Your task to perform on an android device: change the clock display to digital Image 0: 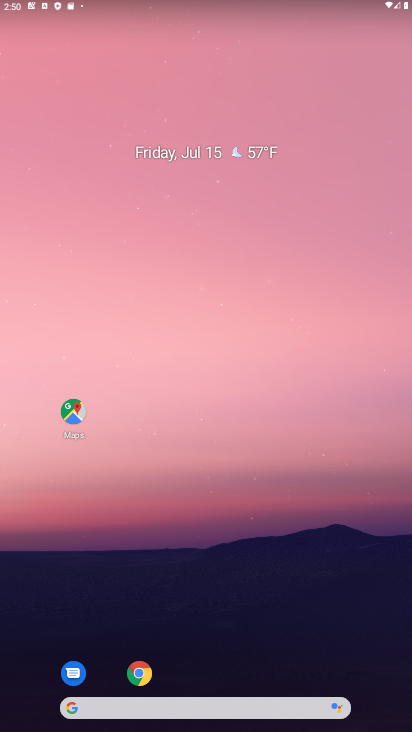
Step 0: drag from (396, 648) to (343, 108)
Your task to perform on an android device: change the clock display to digital Image 1: 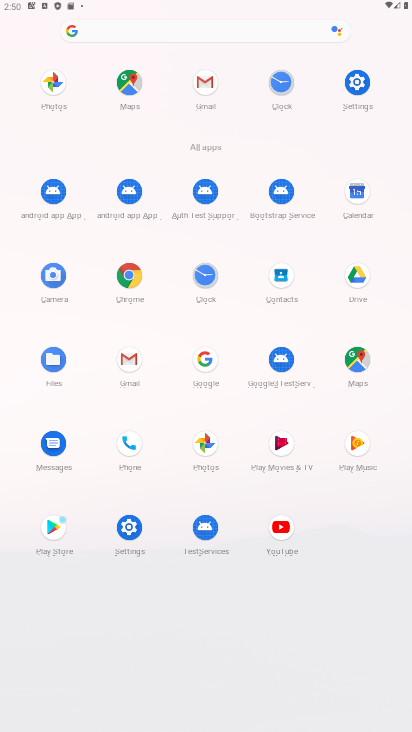
Step 1: click (203, 277)
Your task to perform on an android device: change the clock display to digital Image 2: 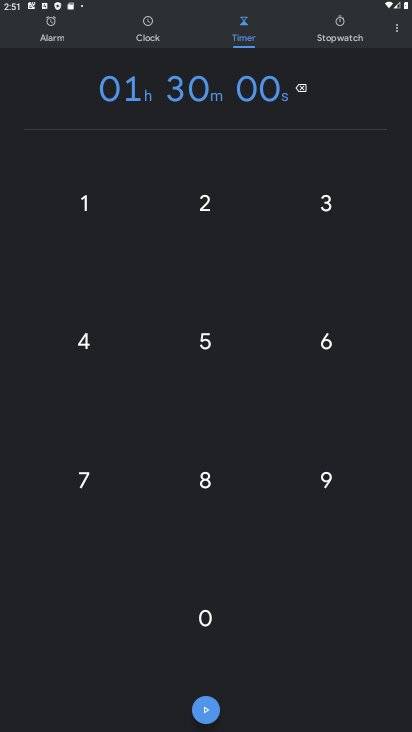
Step 2: click (396, 35)
Your task to perform on an android device: change the clock display to digital Image 3: 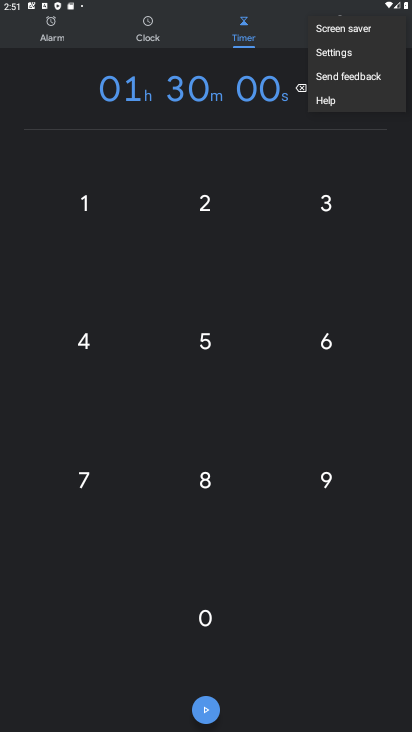
Step 3: click (327, 46)
Your task to perform on an android device: change the clock display to digital Image 4: 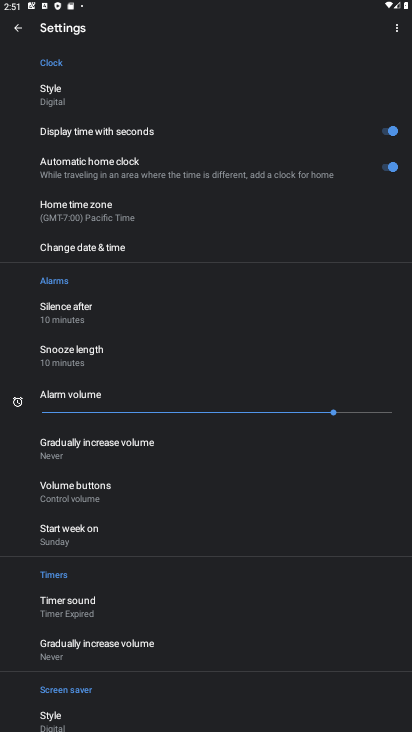
Step 4: task complete